Your task to perform on an android device: Open eBay Image 0: 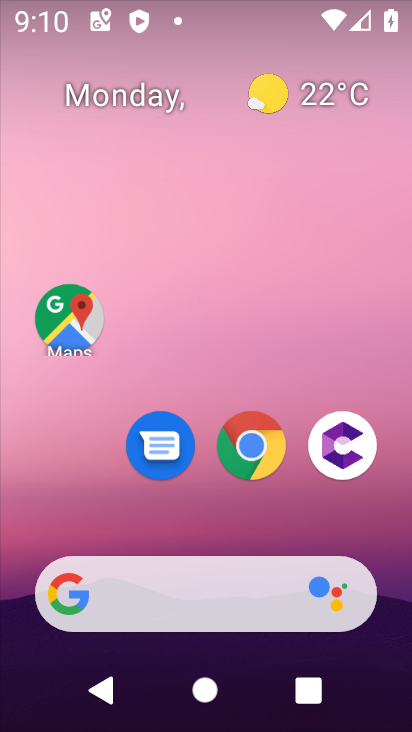
Step 0: press home button
Your task to perform on an android device: Open eBay Image 1: 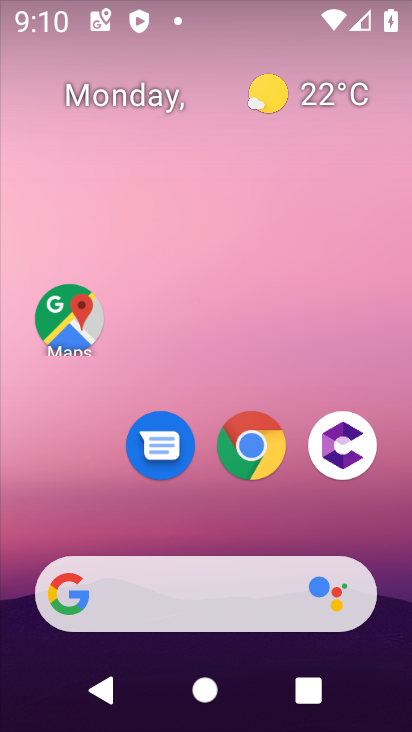
Step 1: click (74, 607)
Your task to perform on an android device: Open eBay Image 2: 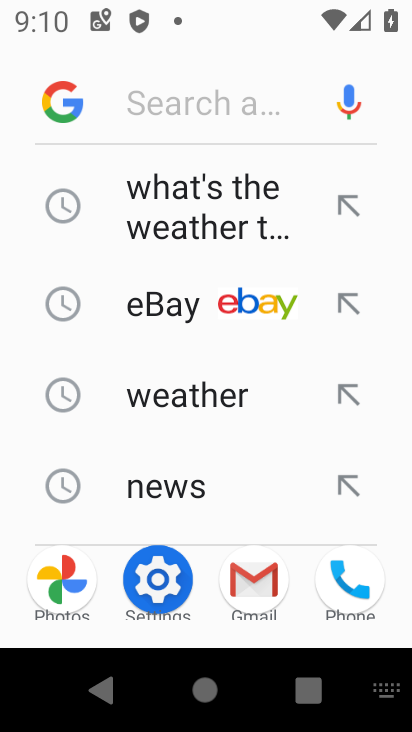
Step 2: click (178, 307)
Your task to perform on an android device: Open eBay Image 3: 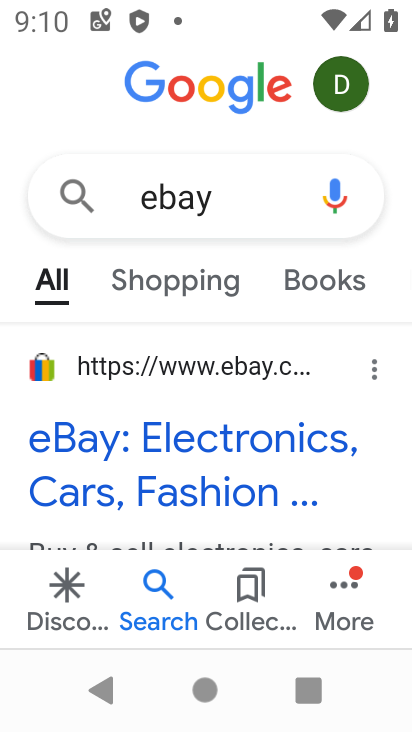
Step 3: click (78, 428)
Your task to perform on an android device: Open eBay Image 4: 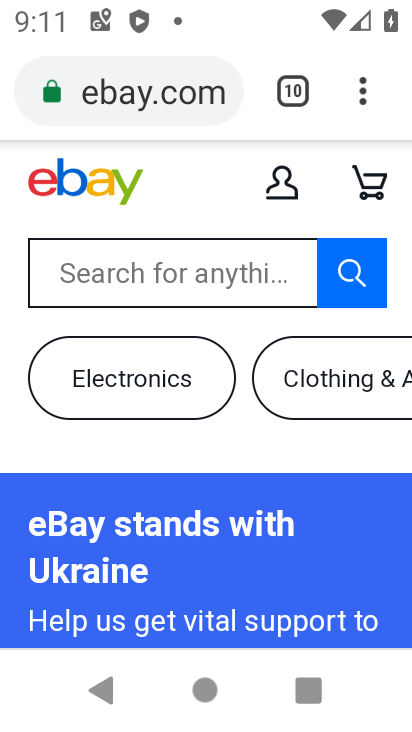
Step 4: task complete